Your task to perform on an android device: What's the weather? Image 0: 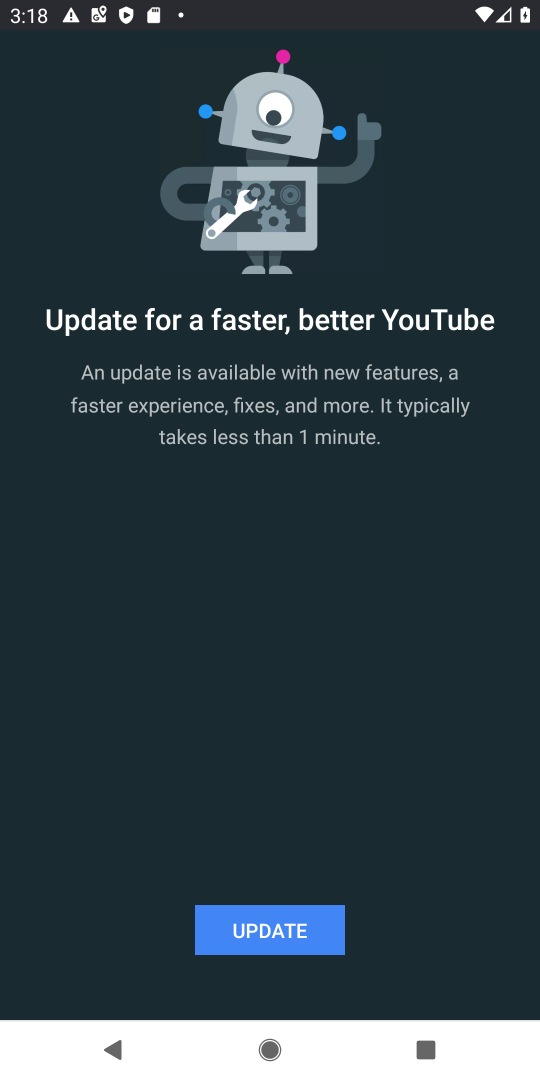
Step 0: press back button
Your task to perform on an android device: What's the weather? Image 1: 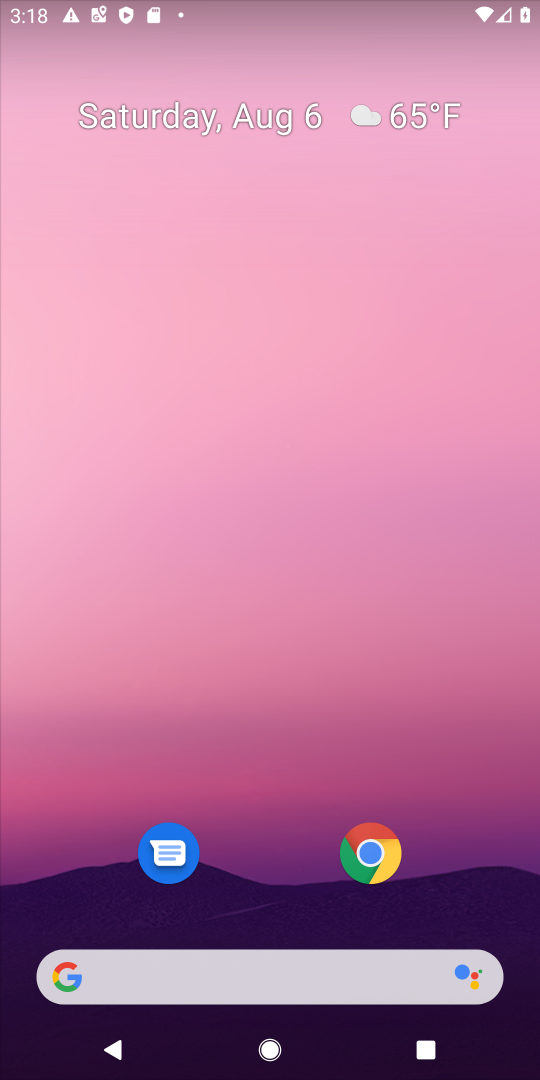
Step 1: click (257, 977)
Your task to perform on an android device: What's the weather? Image 2: 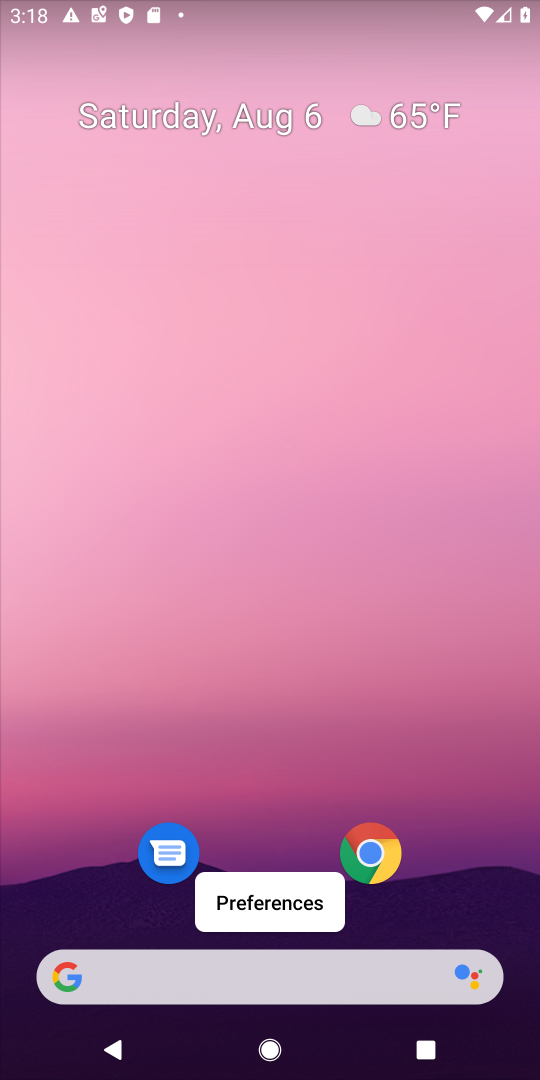
Step 2: click (186, 970)
Your task to perform on an android device: What's the weather? Image 3: 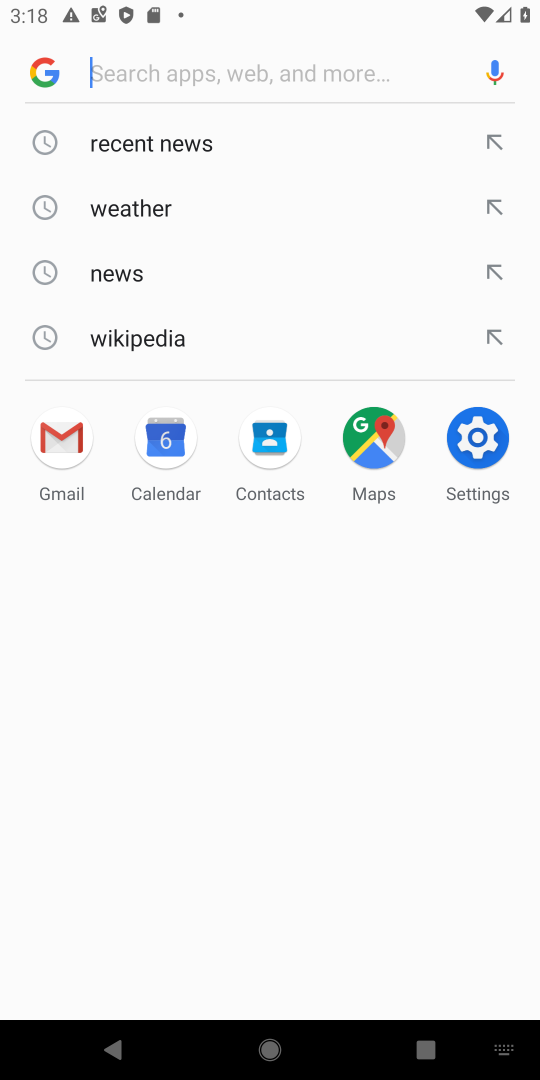
Step 3: click (179, 210)
Your task to perform on an android device: What's the weather? Image 4: 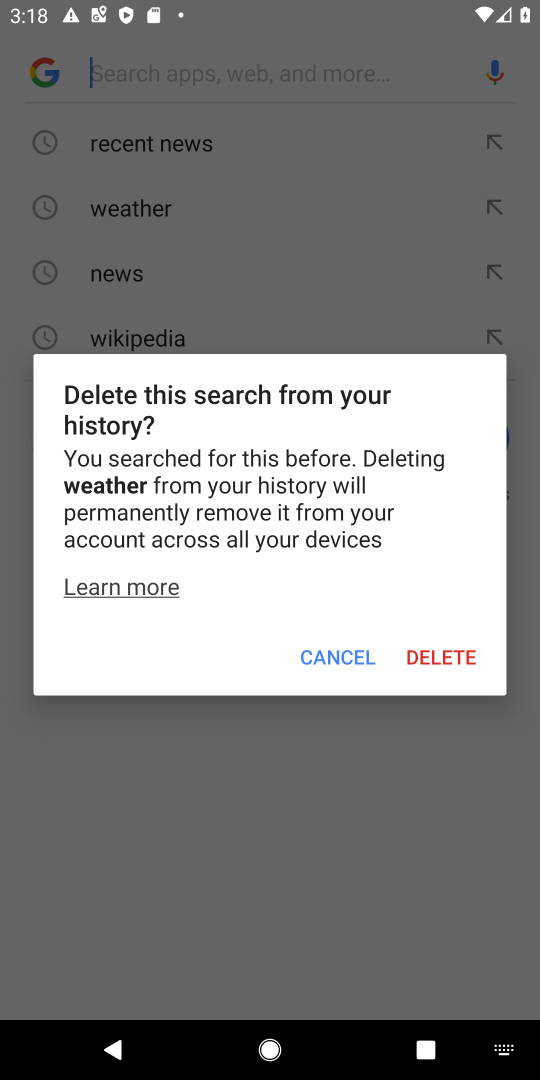
Step 4: click (344, 665)
Your task to perform on an android device: What's the weather? Image 5: 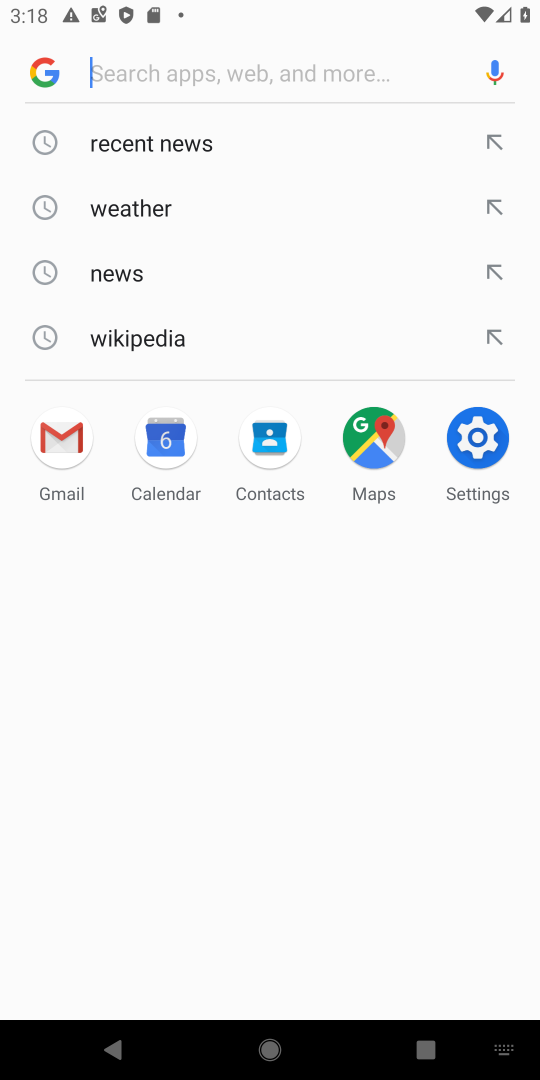
Step 5: click (228, 201)
Your task to perform on an android device: What's the weather? Image 6: 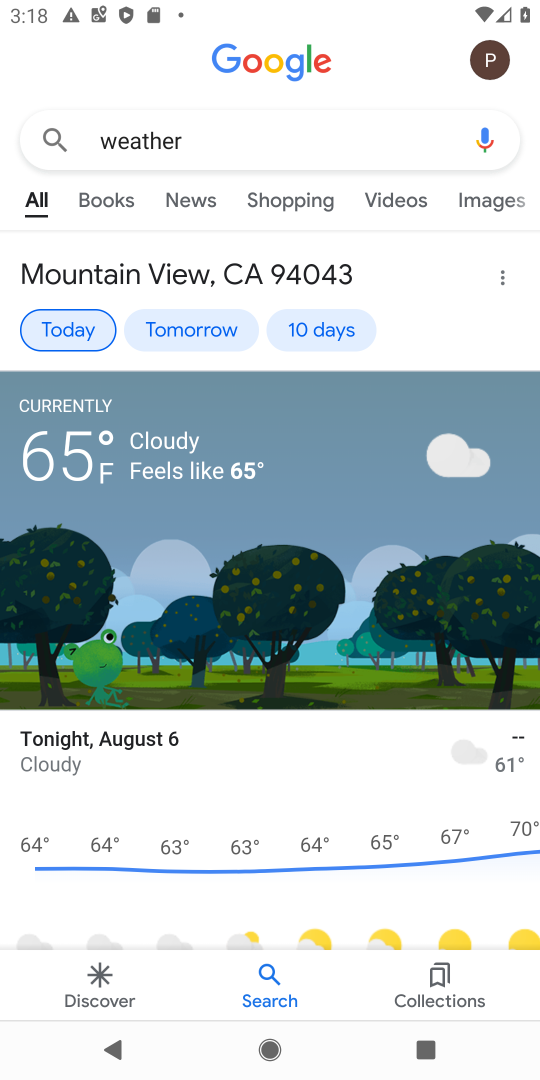
Step 6: task complete